Your task to perform on an android device: Search for pizza restaurants on Maps Image 0: 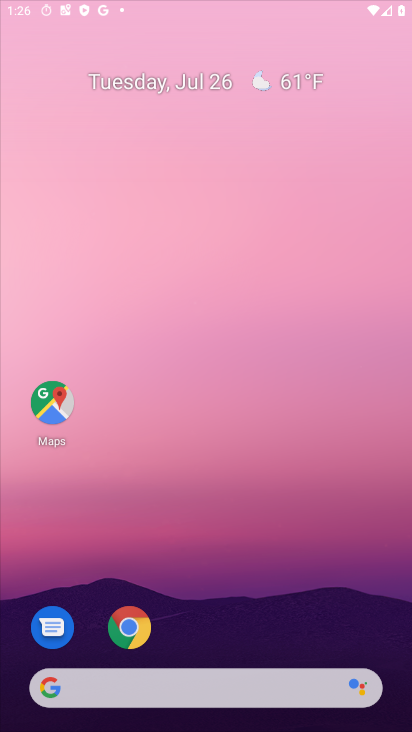
Step 0: click (345, 137)
Your task to perform on an android device: Search for pizza restaurants on Maps Image 1: 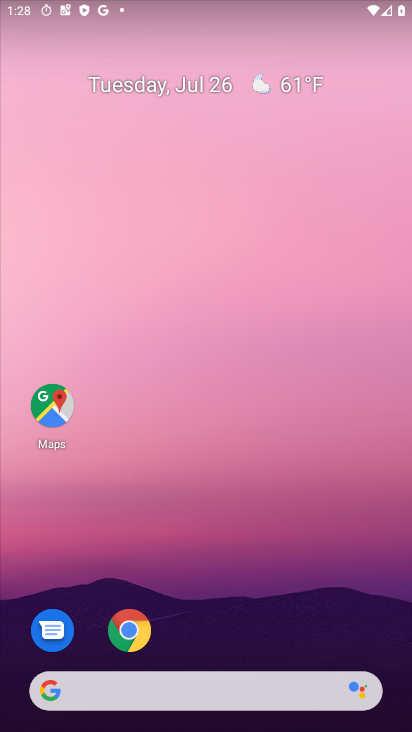
Step 1: drag from (273, 614) to (220, 62)
Your task to perform on an android device: Search for pizza restaurants on Maps Image 2: 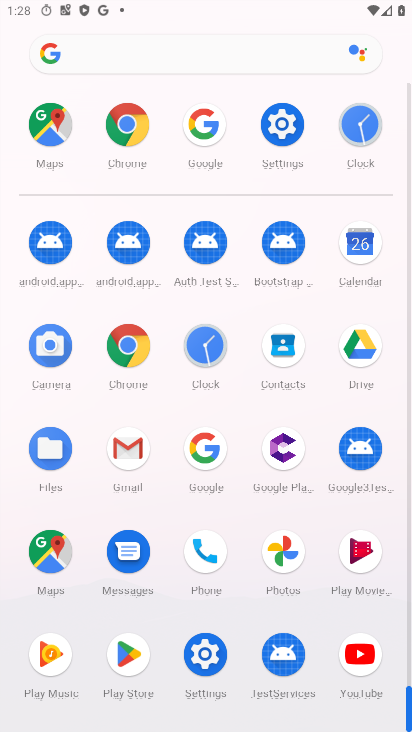
Step 2: click (47, 124)
Your task to perform on an android device: Search for pizza restaurants on Maps Image 3: 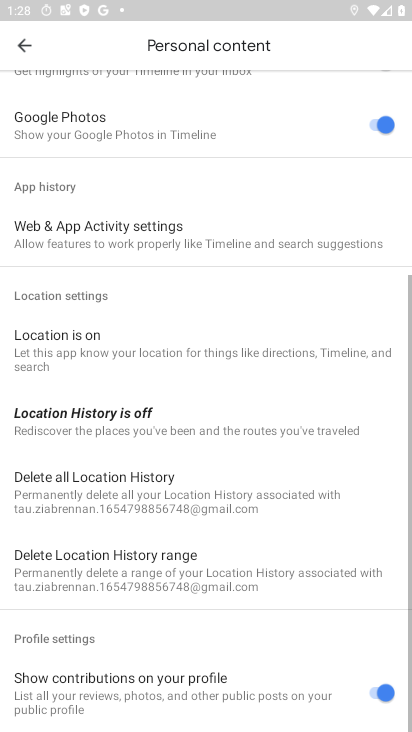
Step 3: click (37, 38)
Your task to perform on an android device: Search for pizza restaurants on Maps Image 4: 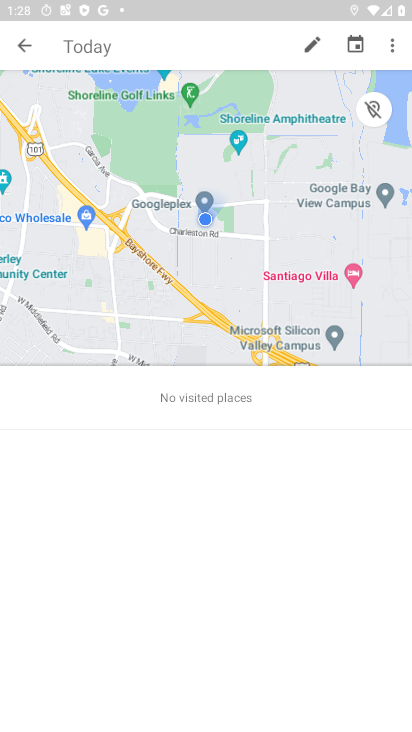
Step 4: click (19, 37)
Your task to perform on an android device: Search for pizza restaurants on Maps Image 5: 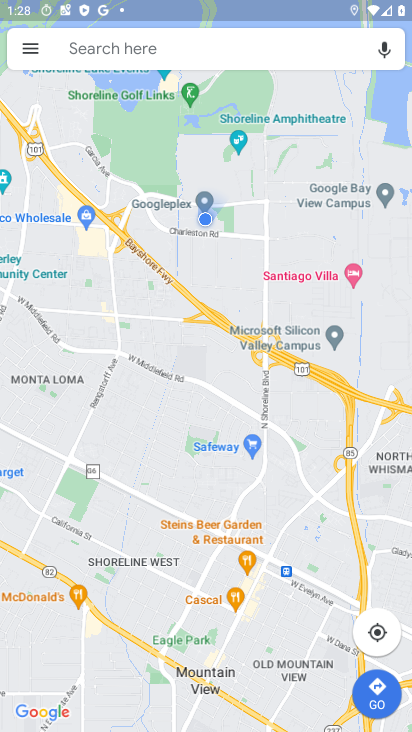
Step 5: click (151, 35)
Your task to perform on an android device: Search for pizza restaurants on Maps Image 6: 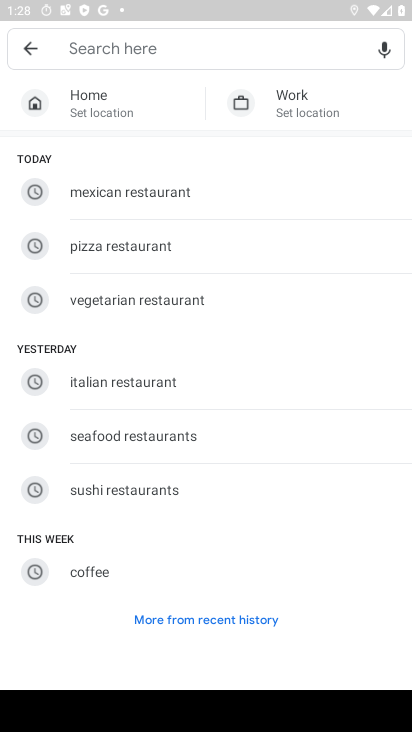
Step 6: click (137, 254)
Your task to perform on an android device: Search for pizza restaurants on Maps Image 7: 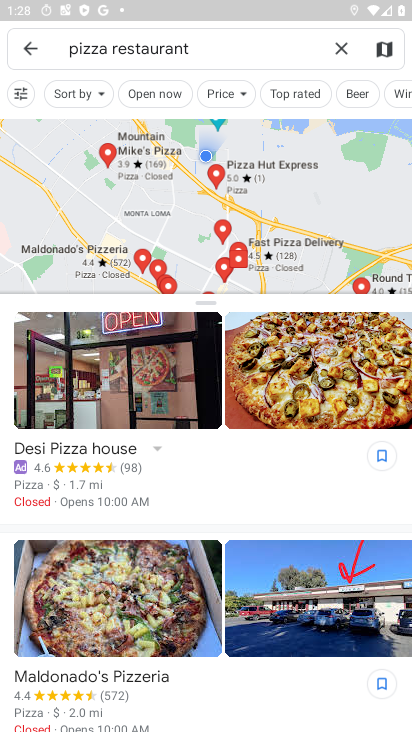
Step 7: task complete